Your task to perform on an android device: search for starred emails in the gmail app Image 0: 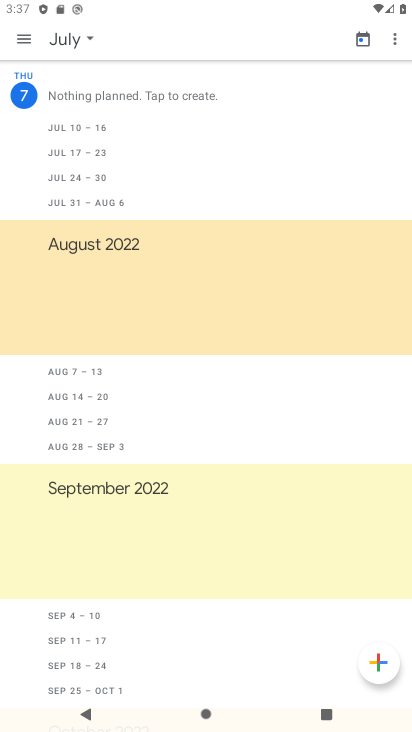
Step 0: press home button
Your task to perform on an android device: search for starred emails in the gmail app Image 1: 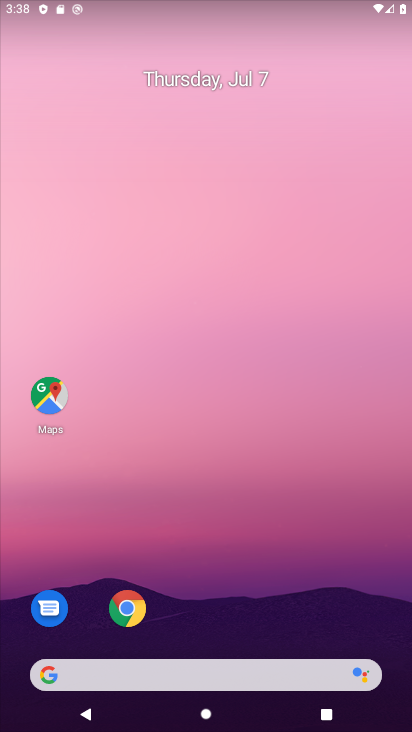
Step 1: drag from (230, 626) to (186, 6)
Your task to perform on an android device: search for starred emails in the gmail app Image 2: 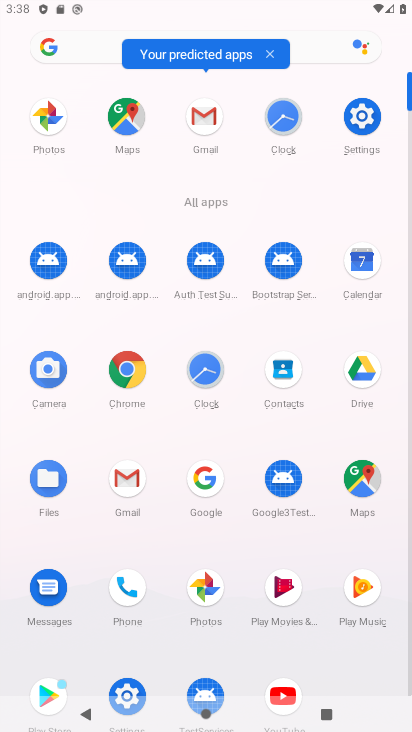
Step 2: click (206, 130)
Your task to perform on an android device: search for starred emails in the gmail app Image 3: 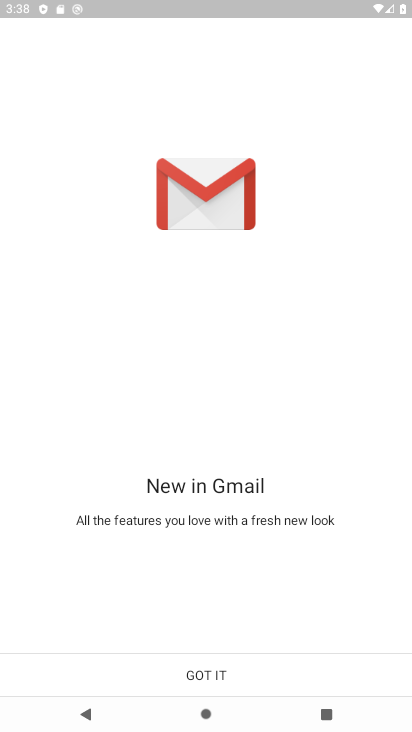
Step 3: click (215, 671)
Your task to perform on an android device: search for starred emails in the gmail app Image 4: 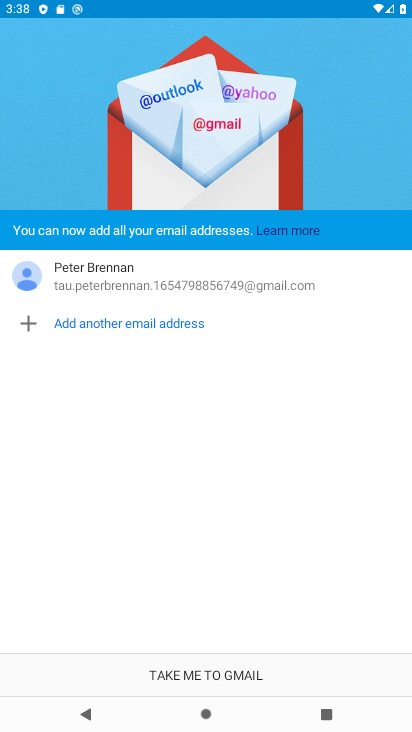
Step 4: click (215, 671)
Your task to perform on an android device: search for starred emails in the gmail app Image 5: 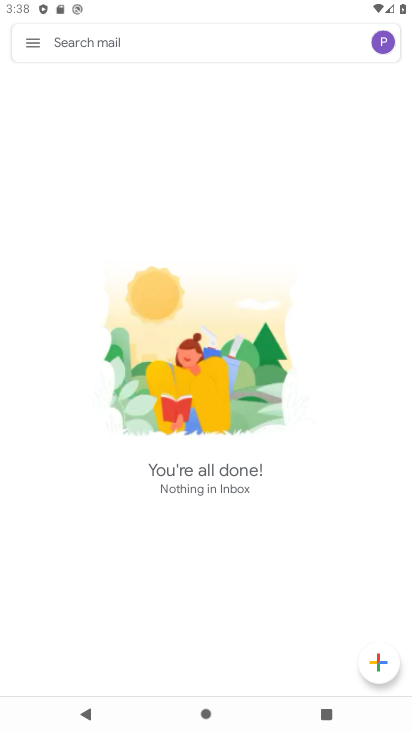
Step 5: click (39, 35)
Your task to perform on an android device: search for starred emails in the gmail app Image 6: 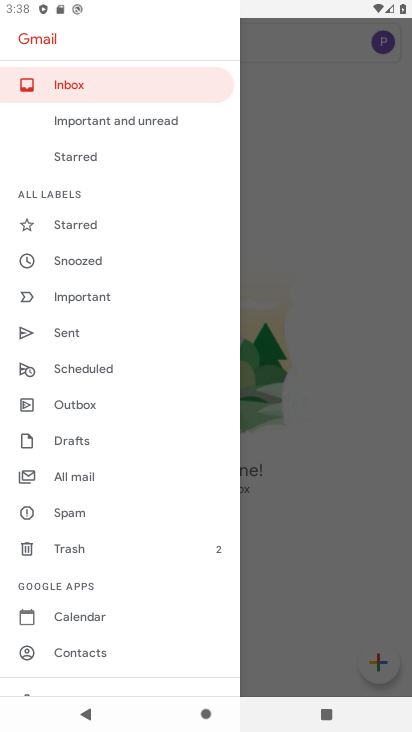
Step 6: click (95, 223)
Your task to perform on an android device: search for starred emails in the gmail app Image 7: 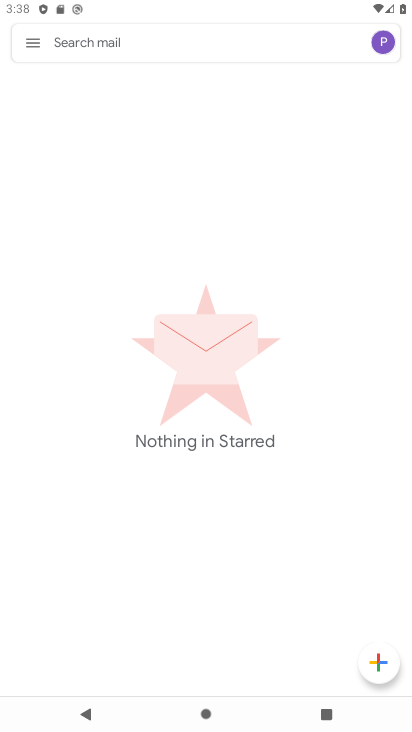
Step 7: task complete